Your task to perform on an android device: Is it going to rain today? Image 0: 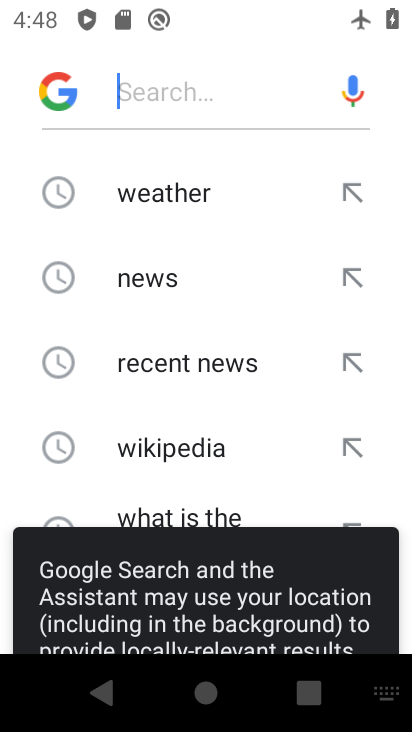
Step 0: press home button
Your task to perform on an android device: Is it going to rain today? Image 1: 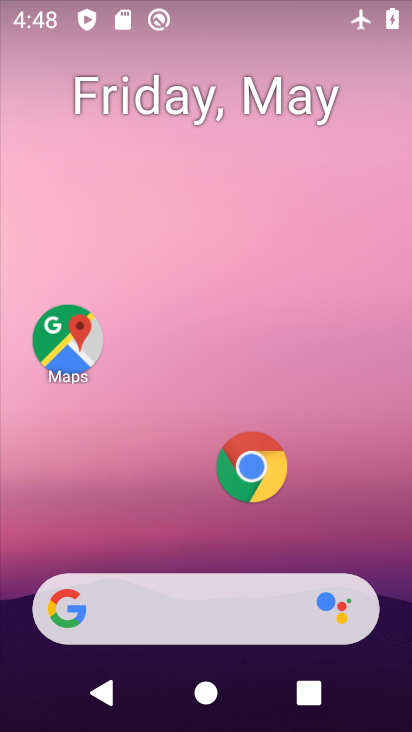
Step 1: drag from (401, 370) to (410, 319)
Your task to perform on an android device: Is it going to rain today? Image 2: 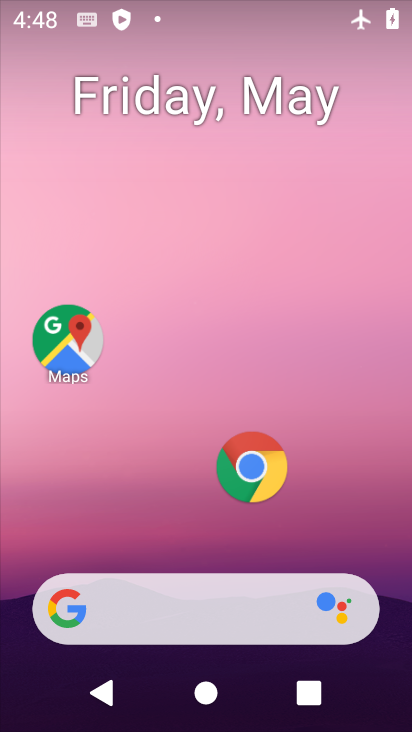
Step 2: drag from (42, 198) to (395, 364)
Your task to perform on an android device: Is it going to rain today? Image 3: 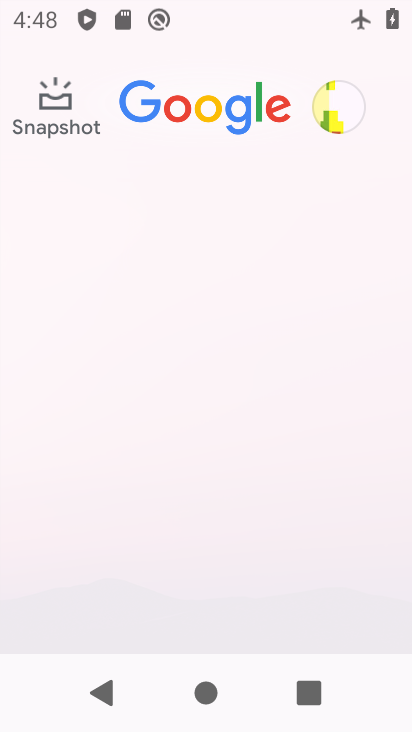
Step 3: drag from (49, 193) to (397, 361)
Your task to perform on an android device: Is it going to rain today? Image 4: 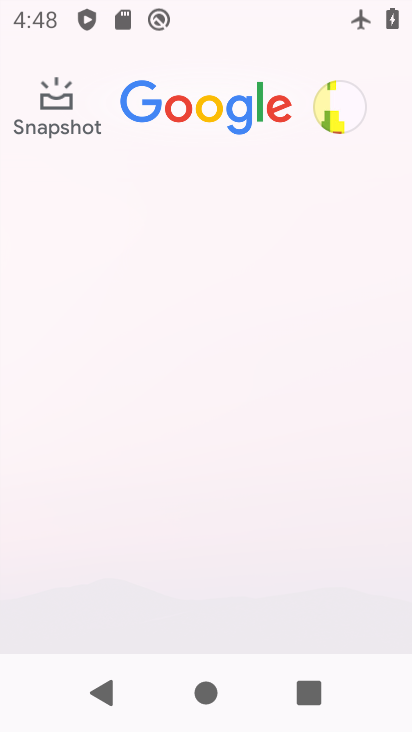
Step 4: drag from (191, 419) to (190, 124)
Your task to perform on an android device: Is it going to rain today? Image 5: 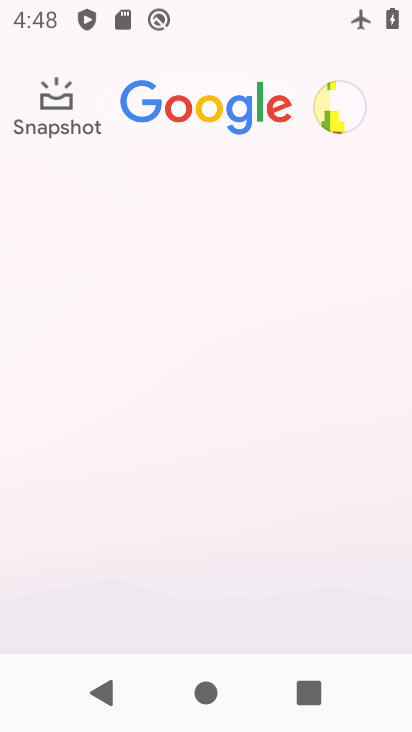
Step 5: click (250, 294)
Your task to perform on an android device: Is it going to rain today? Image 6: 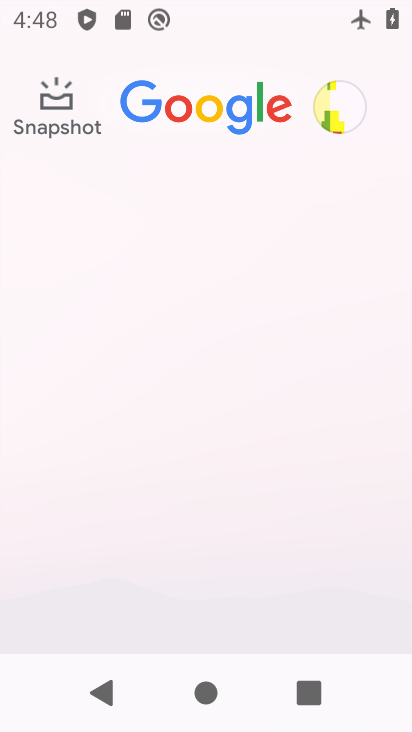
Step 6: click (250, 294)
Your task to perform on an android device: Is it going to rain today? Image 7: 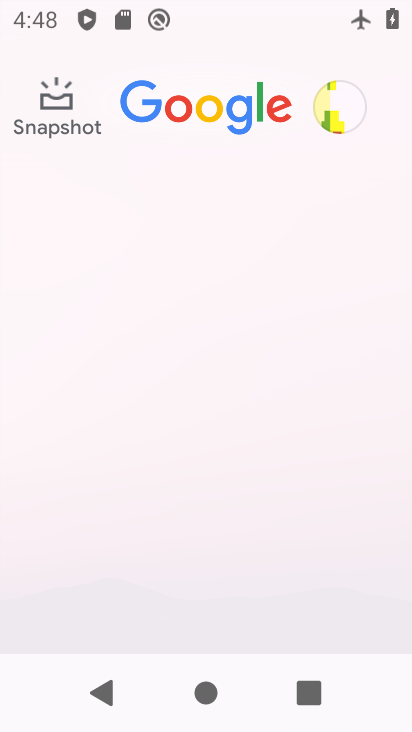
Step 7: click (254, 294)
Your task to perform on an android device: Is it going to rain today? Image 8: 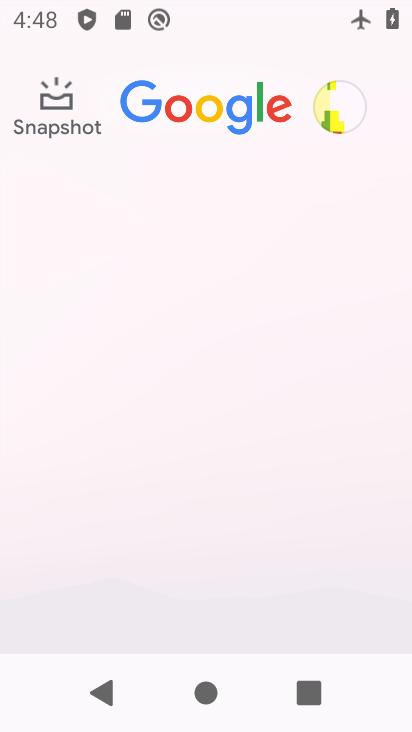
Step 8: click (254, 294)
Your task to perform on an android device: Is it going to rain today? Image 9: 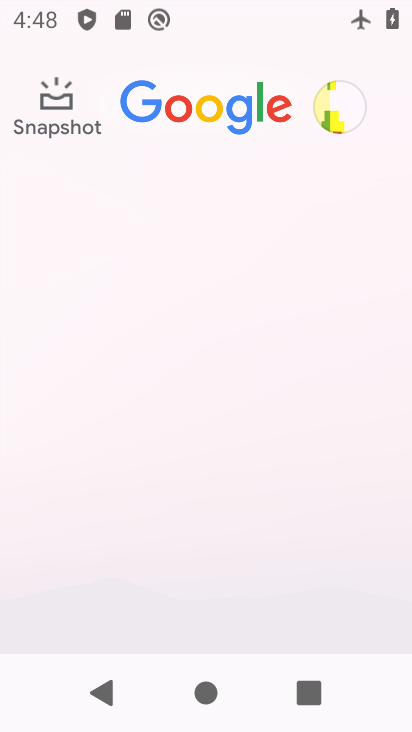
Step 9: click (254, 294)
Your task to perform on an android device: Is it going to rain today? Image 10: 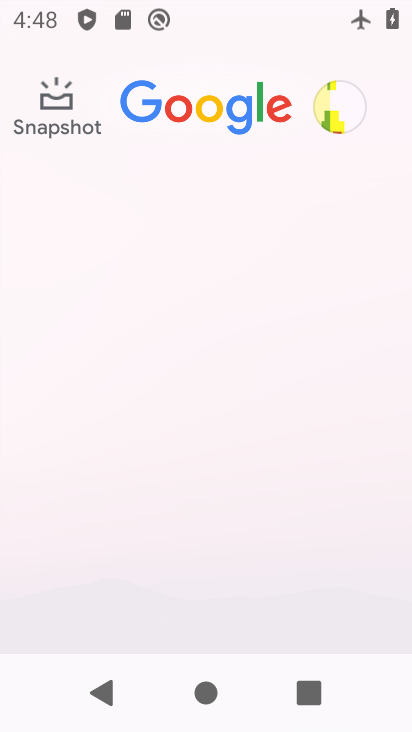
Step 10: click (254, 294)
Your task to perform on an android device: Is it going to rain today? Image 11: 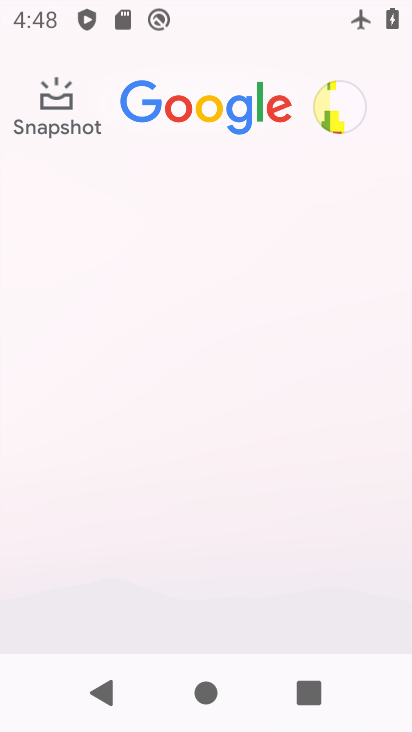
Step 11: click (254, 294)
Your task to perform on an android device: Is it going to rain today? Image 12: 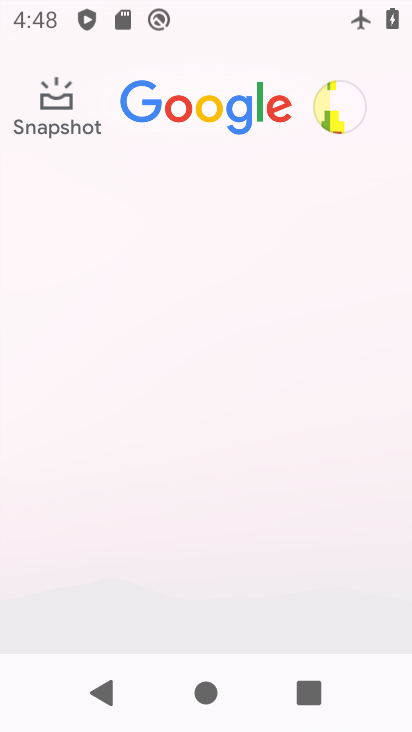
Step 12: click (255, 364)
Your task to perform on an android device: Is it going to rain today? Image 13: 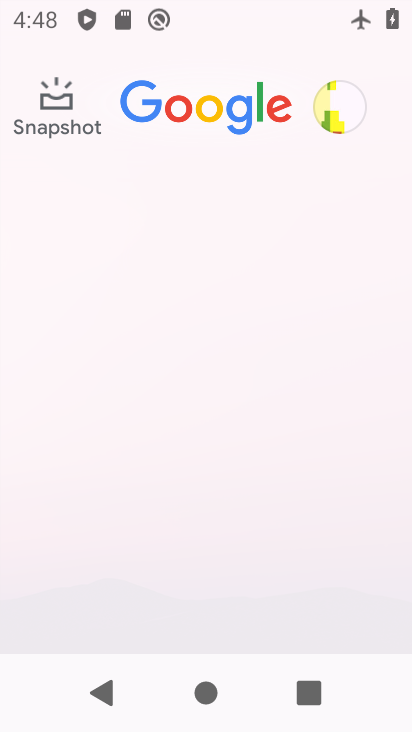
Step 13: task complete